Your task to perform on an android device: remove spam from my inbox in the gmail app Image 0: 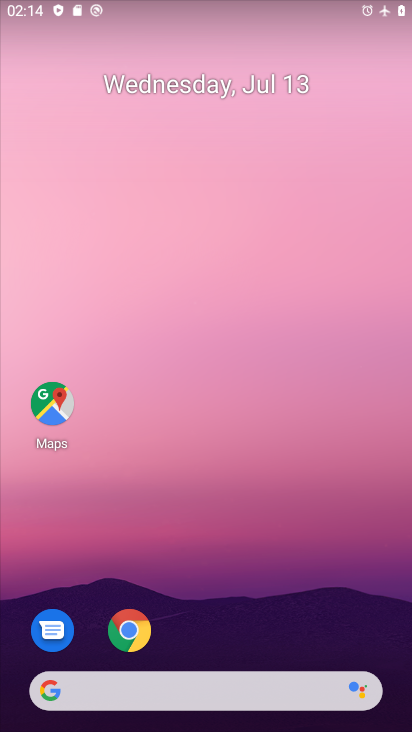
Step 0: drag from (220, 626) to (171, 241)
Your task to perform on an android device: remove spam from my inbox in the gmail app Image 1: 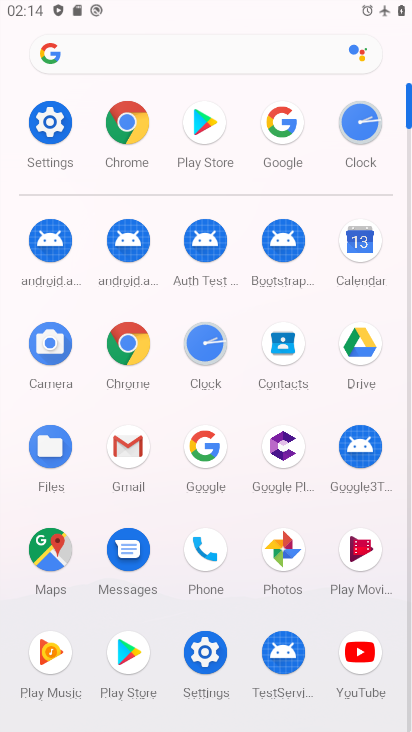
Step 1: click (149, 457)
Your task to perform on an android device: remove spam from my inbox in the gmail app Image 2: 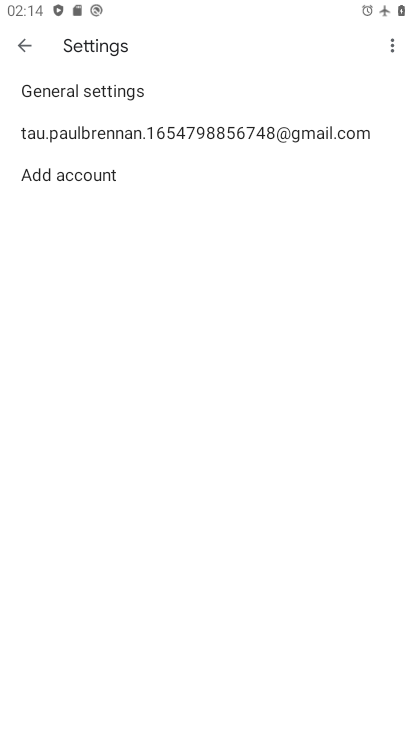
Step 2: click (37, 45)
Your task to perform on an android device: remove spam from my inbox in the gmail app Image 3: 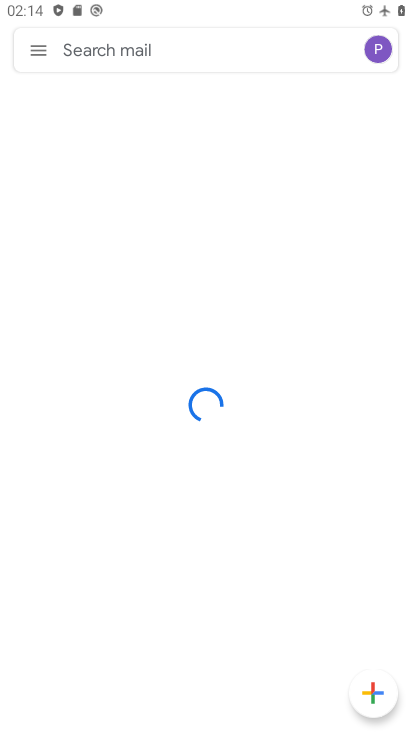
Step 3: click (37, 45)
Your task to perform on an android device: remove spam from my inbox in the gmail app Image 4: 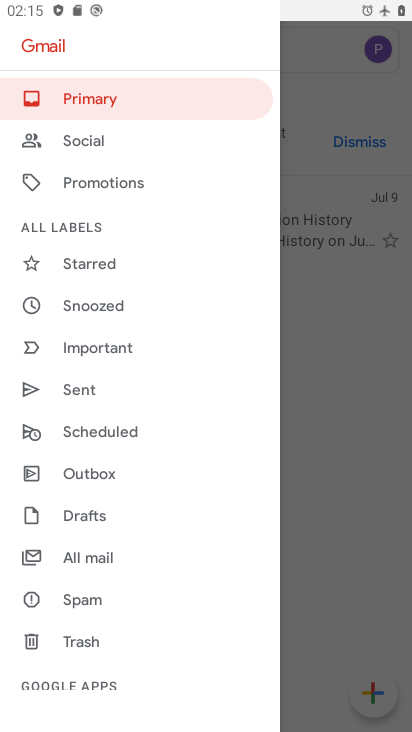
Step 4: click (116, 604)
Your task to perform on an android device: remove spam from my inbox in the gmail app Image 5: 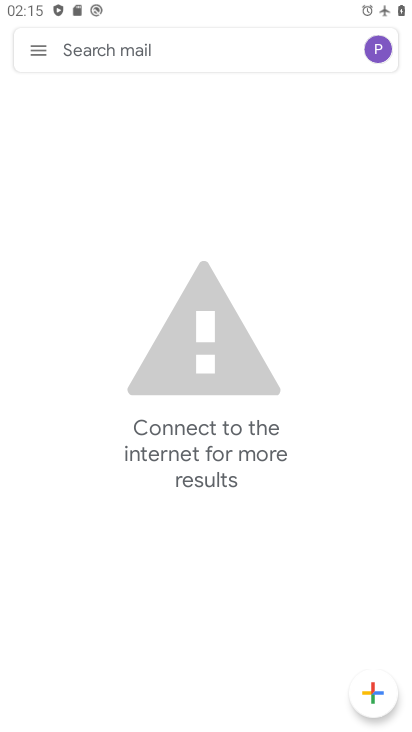
Step 5: task complete